Your task to perform on an android device: turn off wifi Image 0: 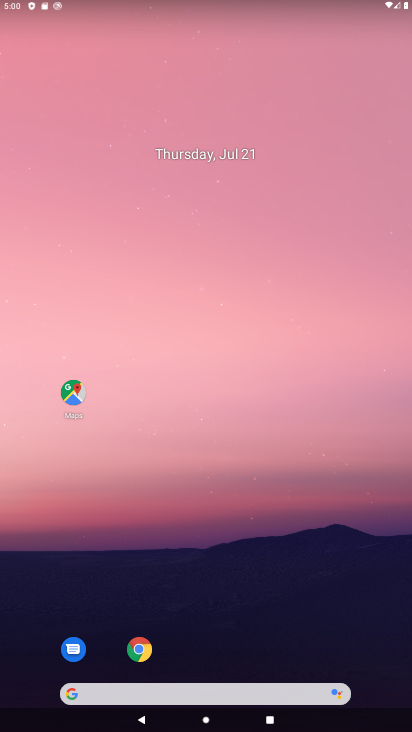
Step 0: drag from (129, 58) to (199, 622)
Your task to perform on an android device: turn off wifi Image 1: 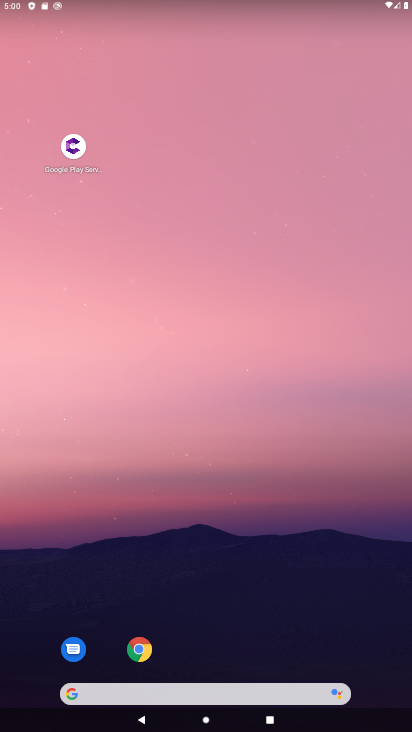
Step 1: drag from (48, 0) to (140, 657)
Your task to perform on an android device: turn off wifi Image 2: 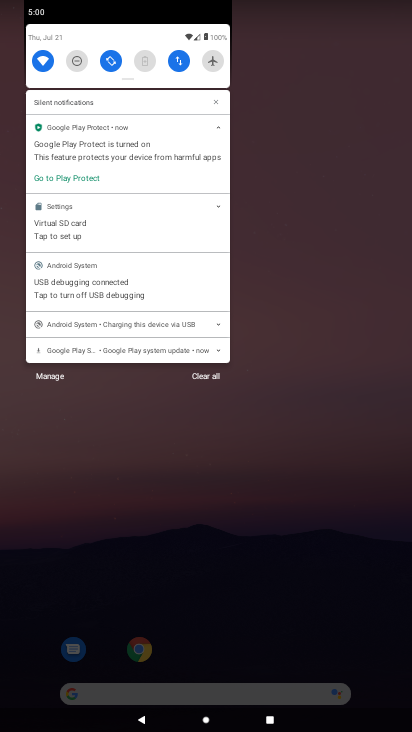
Step 2: click (38, 67)
Your task to perform on an android device: turn off wifi Image 3: 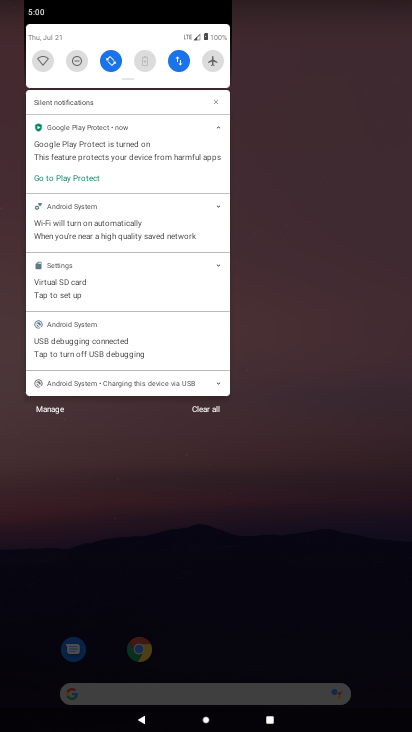
Step 3: task complete